Your task to perform on an android device: allow notifications from all sites in the chrome app Image 0: 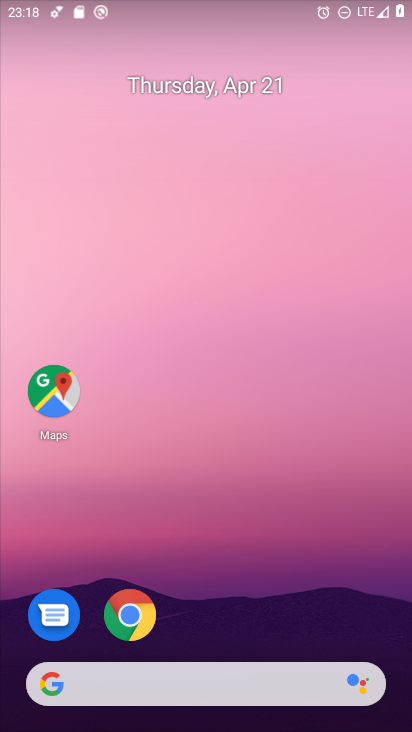
Step 0: click (226, 1)
Your task to perform on an android device: allow notifications from all sites in the chrome app Image 1: 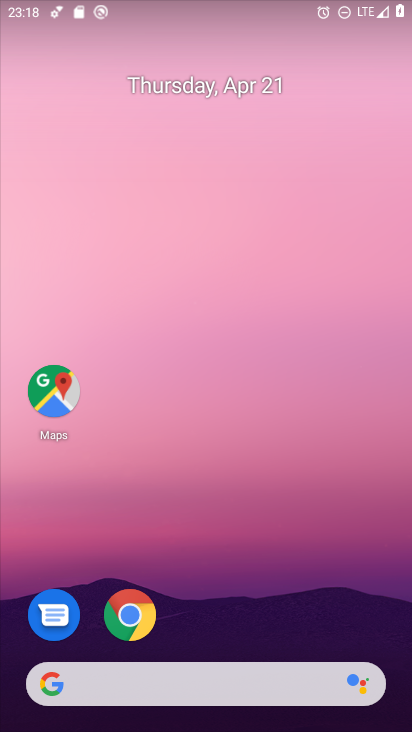
Step 1: drag from (237, 640) to (272, 38)
Your task to perform on an android device: allow notifications from all sites in the chrome app Image 2: 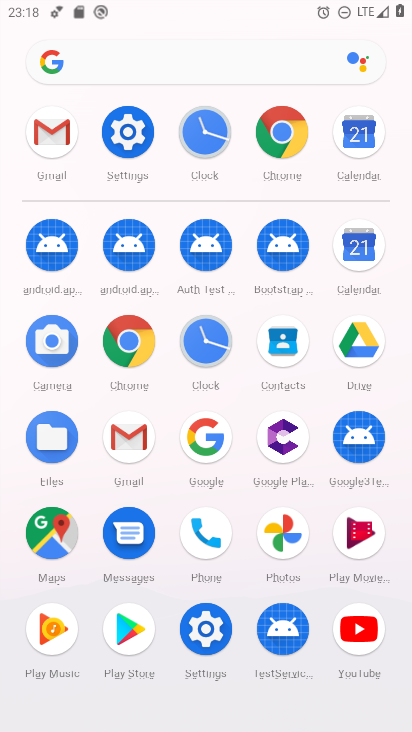
Step 2: click (125, 332)
Your task to perform on an android device: allow notifications from all sites in the chrome app Image 3: 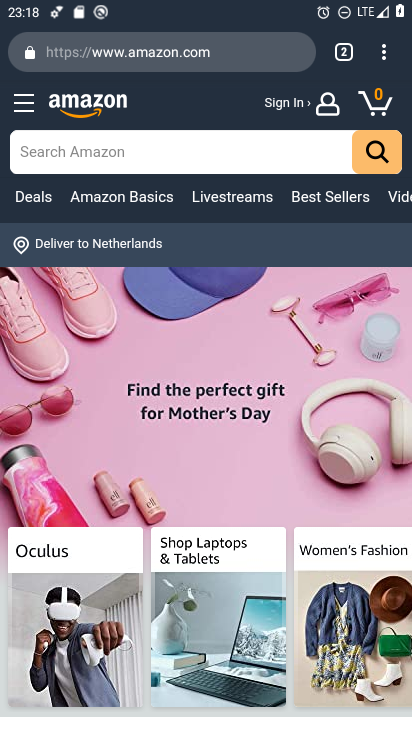
Step 3: click (384, 51)
Your task to perform on an android device: allow notifications from all sites in the chrome app Image 4: 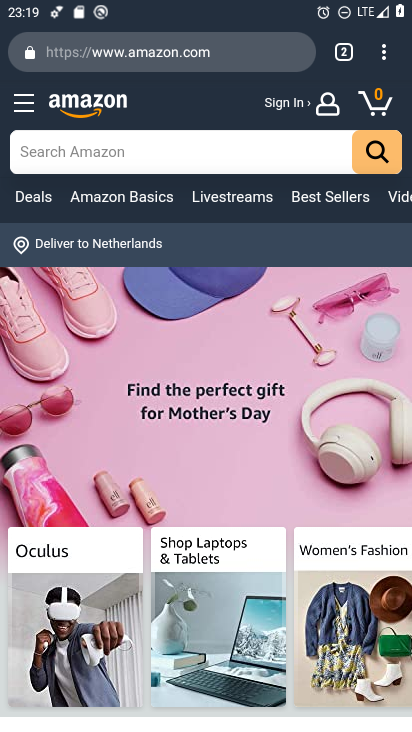
Step 4: click (381, 50)
Your task to perform on an android device: allow notifications from all sites in the chrome app Image 5: 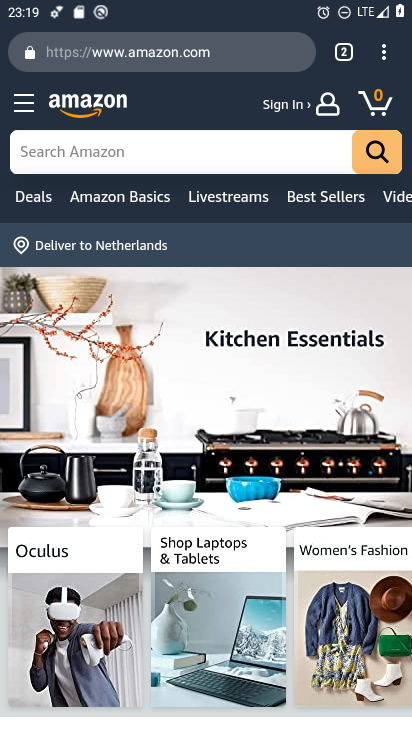
Step 5: click (386, 48)
Your task to perform on an android device: allow notifications from all sites in the chrome app Image 6: 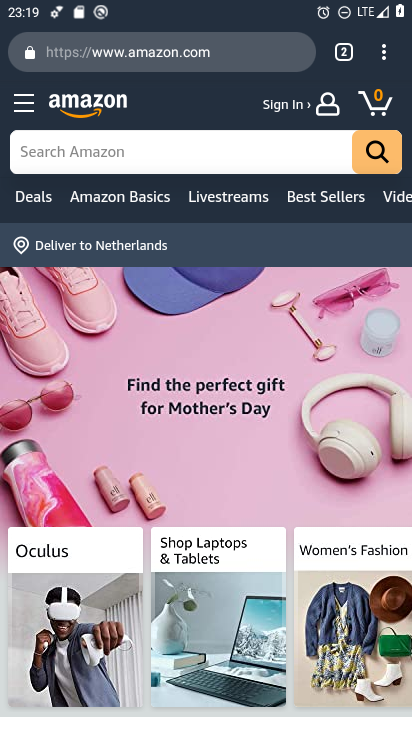
Step 6: click (383, 54)
Your task to perform on an android device: allow notifications from all sites in the chrome app Image 7: 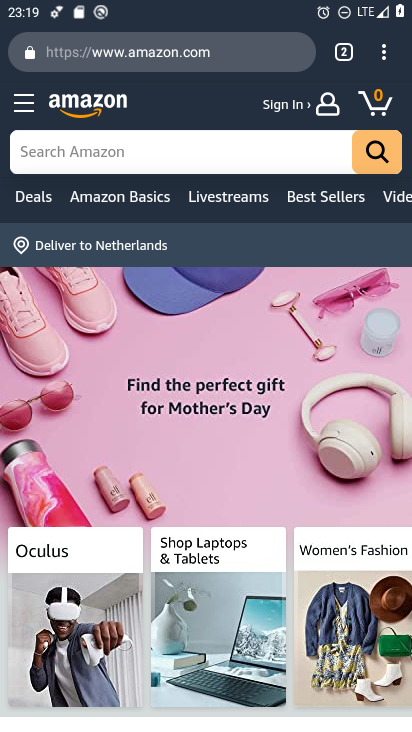
Step 7: click (379, 50)
Your task to perform on an android device: allow notifications from all sites in the chrome app Image 8: 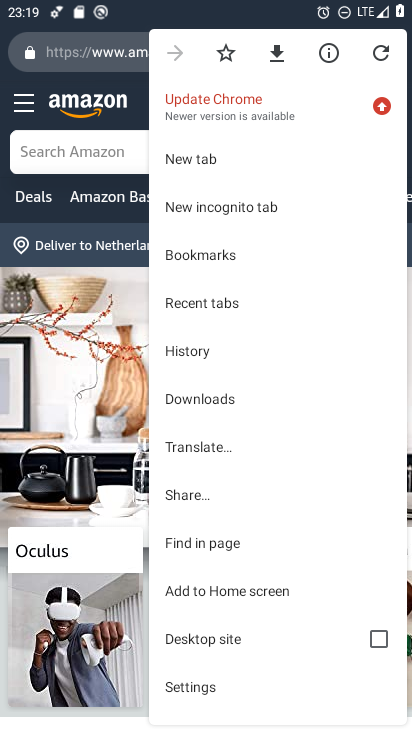
Step 8: click (223, 688)
Your task to perform on an android device: allow notifications from all sites in the chrome app Image 9: 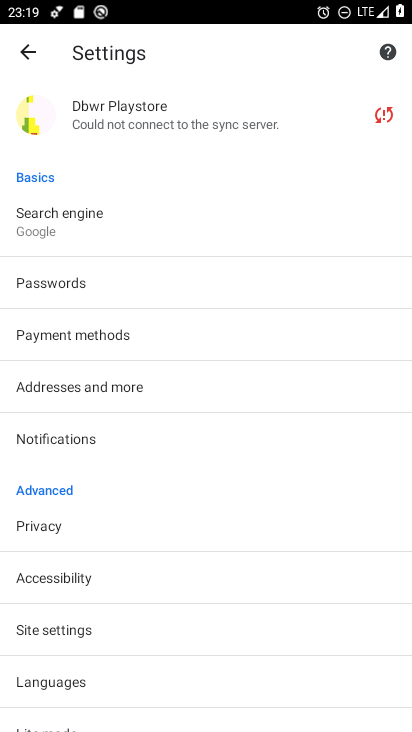
Step 9: click (135, 629)
Your task to perform on an android device: allow notifications from all sites in the chrome app Image 10: 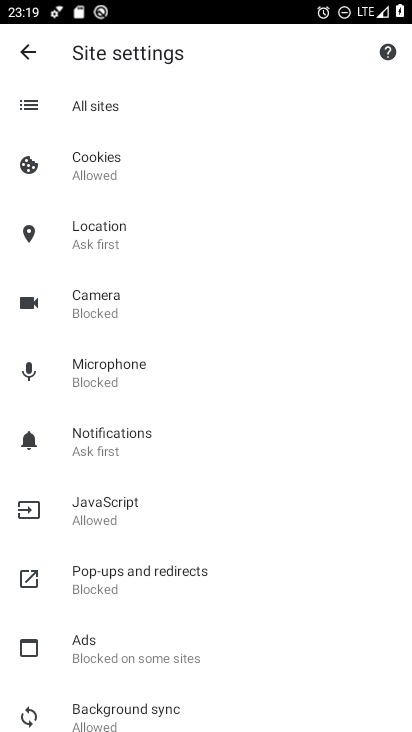
Step 10: click (96, 102)
Your task to perform on an android device: allow notifications from all sites in the chrome app Image 11: 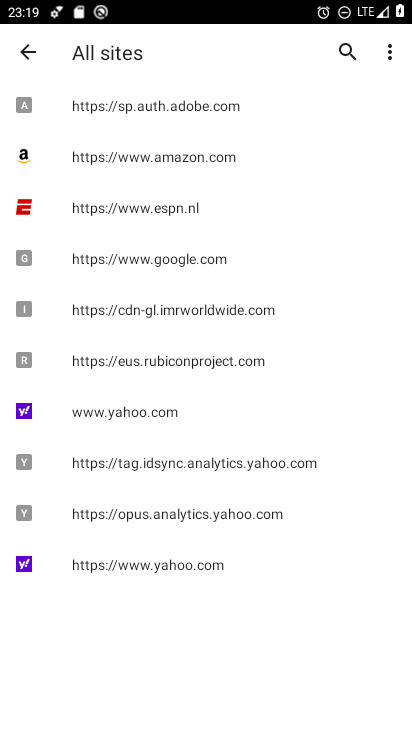
Step 11: click (211, 99)
Your task to perform on an android device: allow notifications from all sites in the chrome app Image 12: 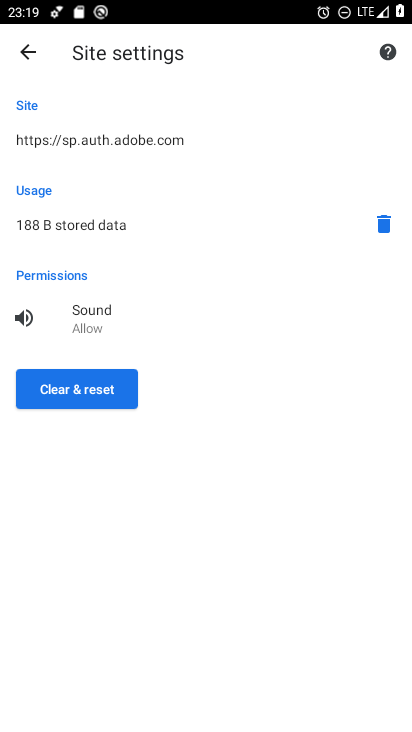
Step 12: click (25, 53)
Your task to perform on an android device: allow notifications from all sites in the chrome app Image 13: 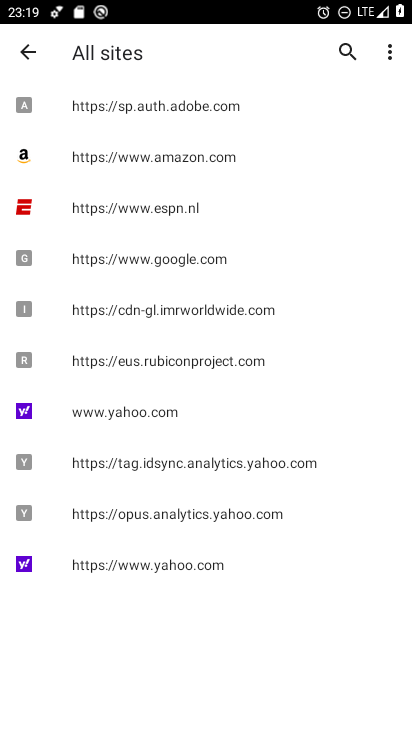
Step 13: click (125, 159)
Your task to perform on an android device: allow notifications from all sites in the chrome app Image 14: 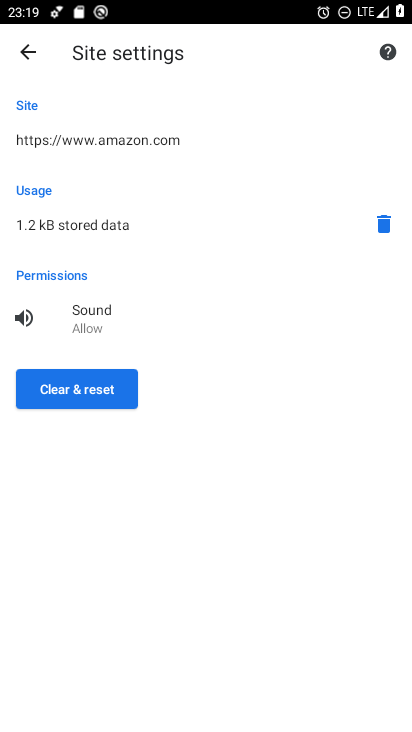
Step 14: click (30, 55)
Your task to perform on an android device: allow notifications from all sites in the chrome app Image 15: 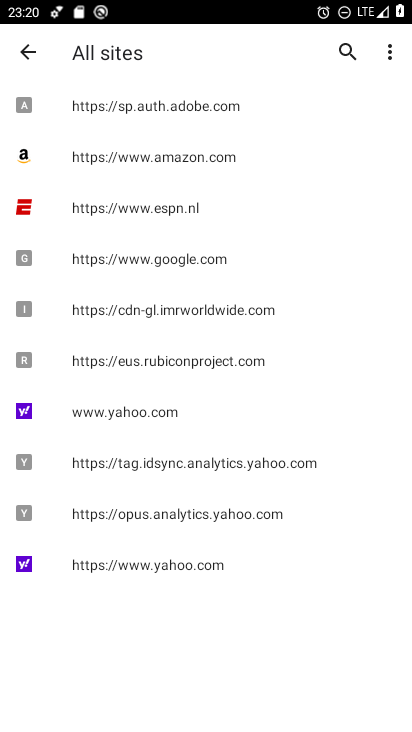
Step 15: click (108, 258)
Your task to perform on an android device: allow notifications from all sites in the chrome app Image 16: 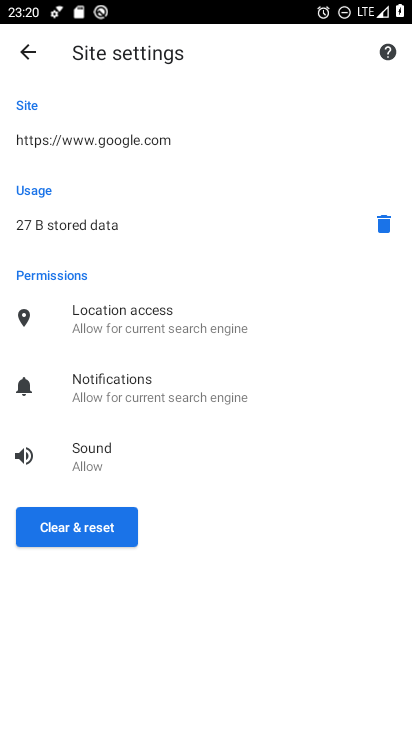
Step 16: click (34, 62)
Your task to perform on an android device: allow notifications from all sites in the chrome app Image 17: 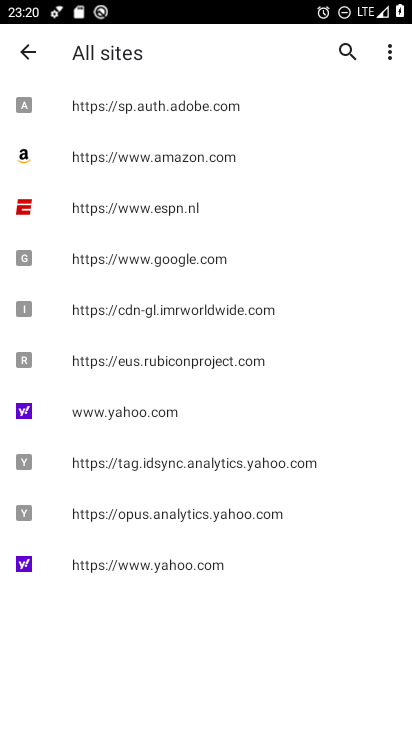
Step 17: click (88, 356)
Your task to perform on an android device: allow notifications from all sites in the chrome app Image 18: 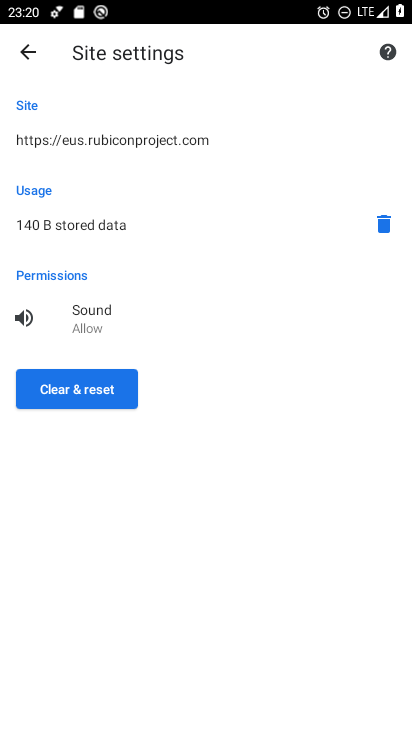
Step 18: task complete